Your task to perform on an android device: What's the weather going to be this weekend? Image 0: 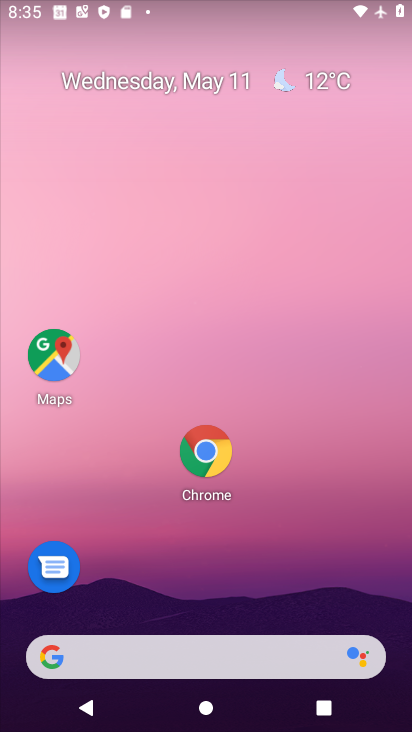
Step 0: click (328, 80)
Your task to perform on an android device: What's the weather going to be this weekend? Image 1: 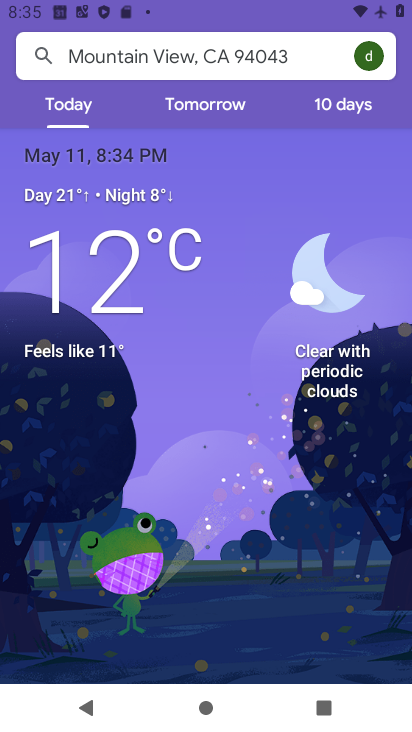
Step 1: click (331, 108)
Your task to perform on an android device: What's the weather going to be this weekend? Image 2: 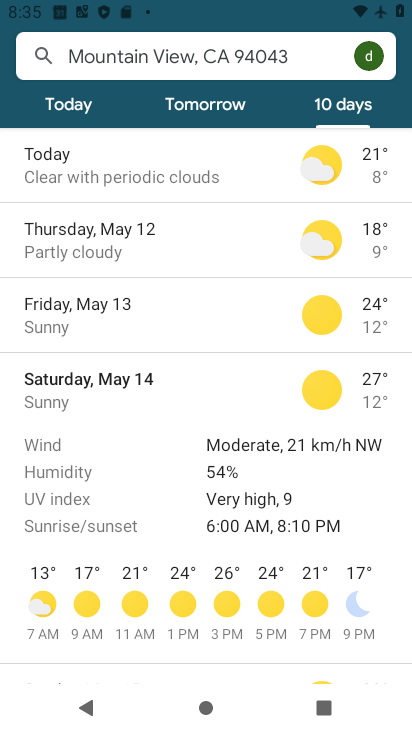
Step 2: task complete